Your task to perform on an android device: all mails in gmail Image 0: 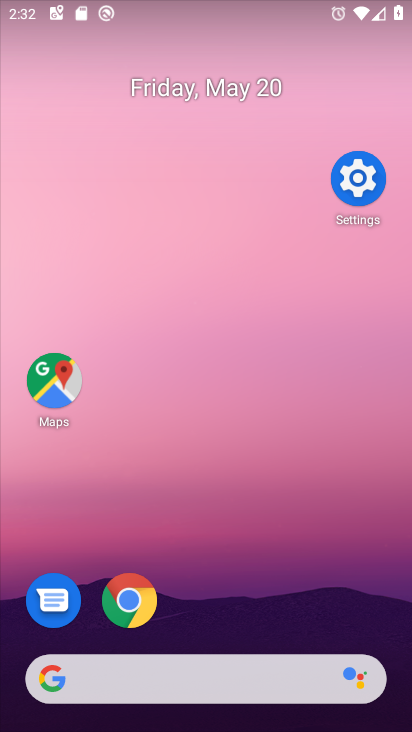
Step 0: drag from (225, 639) to (235, 75)
Your task to perform on an android device: all mails in gmail Image 1: 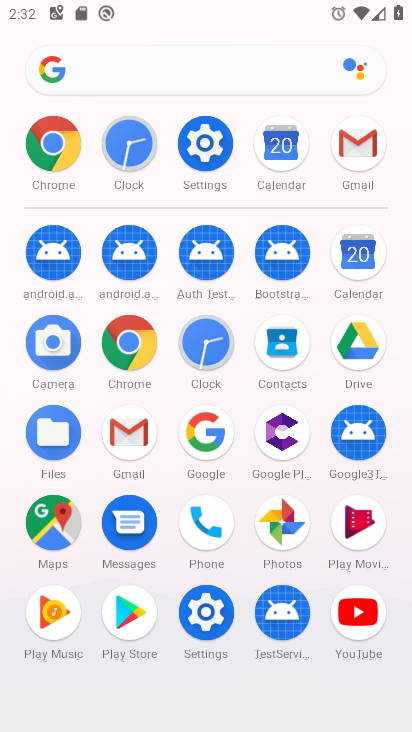
Step 1: click (134, 438)
Your task to perform on an android device: all mails in gmail Image 2: 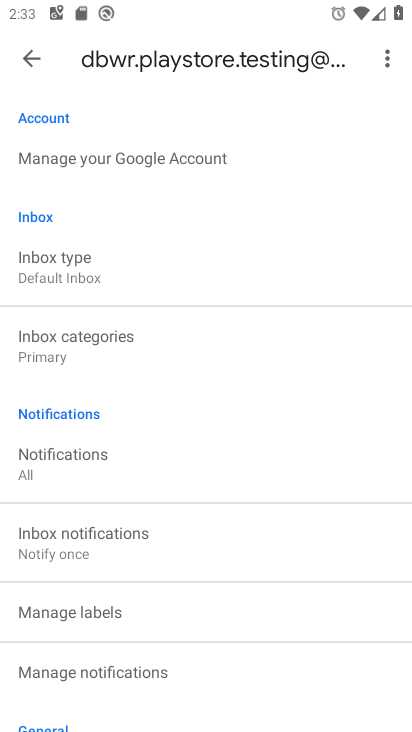
Step 2: click (28, 59)
Your task to perform on an android device: all mails in gmail Image 3: 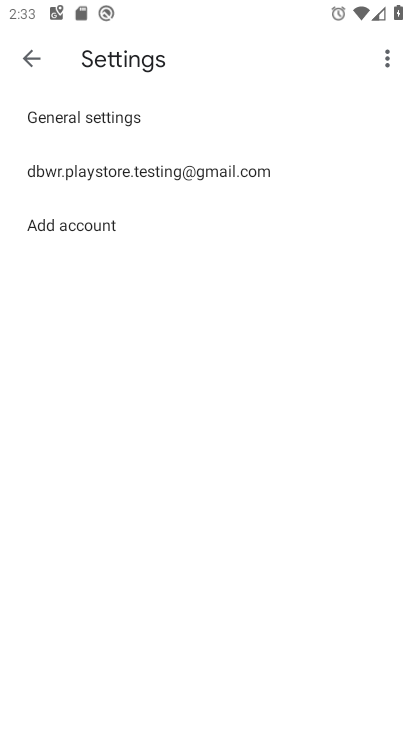
Step 3: click (31, 49)
Your task to perform on an android device: all mails in gmail Image 4: 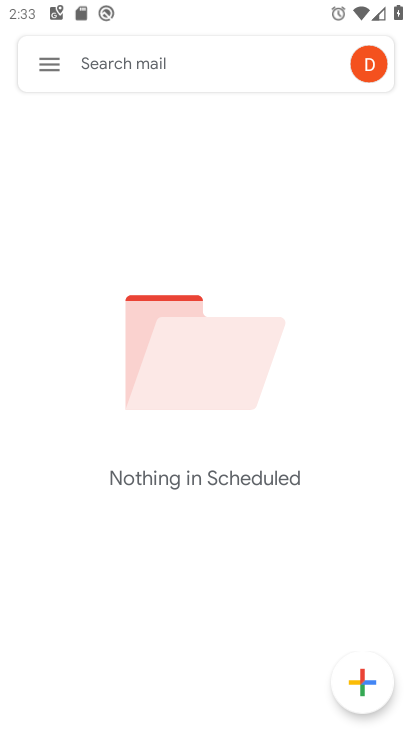
Step 4: click (50, 64)
Your task to perform on an android device: all mails in gmail Image 5: 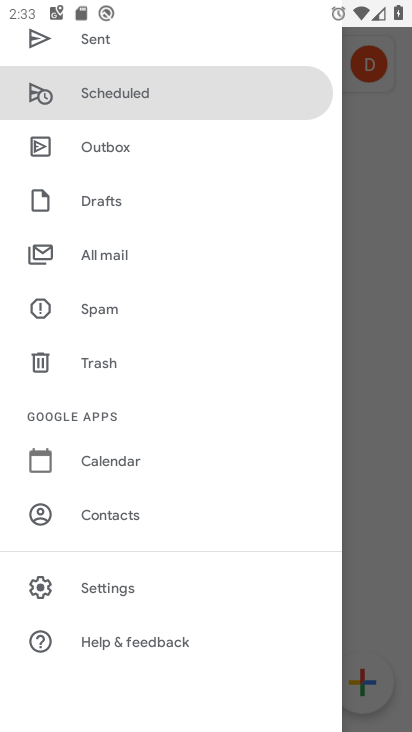
Step 5: click (101, 258)
Your task to perform on an android device: all mails in gmail Image 6: 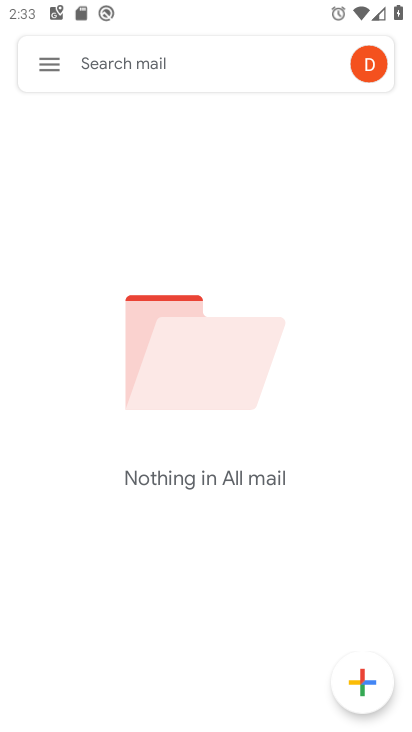
Step 6: task complete